Your task to perform on an android device: turn vacation reply on in the gmail app Image 0: 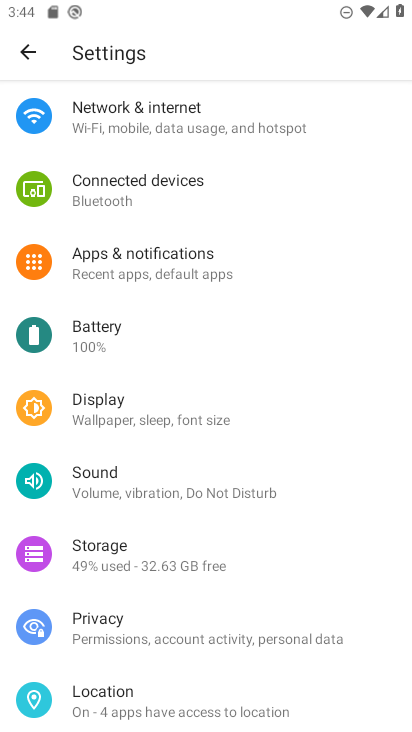
Step 0: press home button
Your task to perform on an android device: turn vacation reply on in the gmail app Image 1: 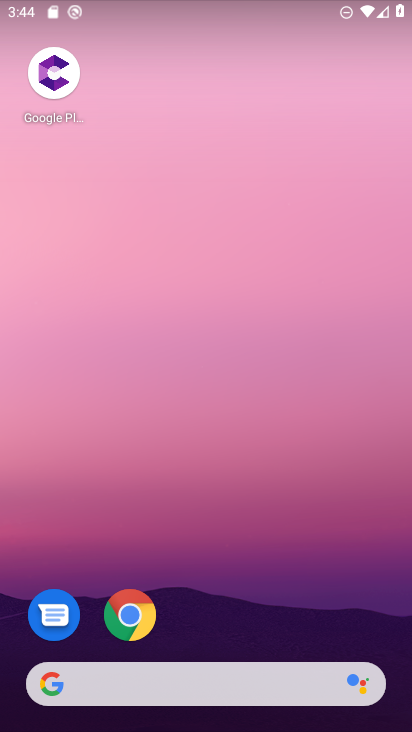
Step 1: drag from (250, 607) to (250, 96)
Your task to perform on an android device: turn vacation reply on in the gmail app Image 2: 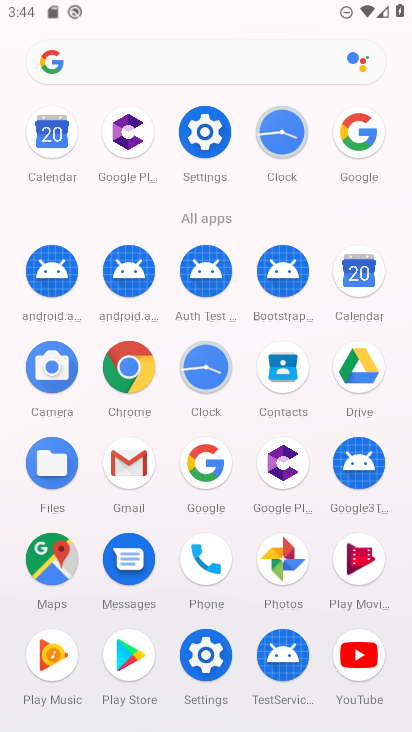
Step 2: click (132, 461)
Your task to perform on an android device: turn vacation reply on in the gmail app Image 3: 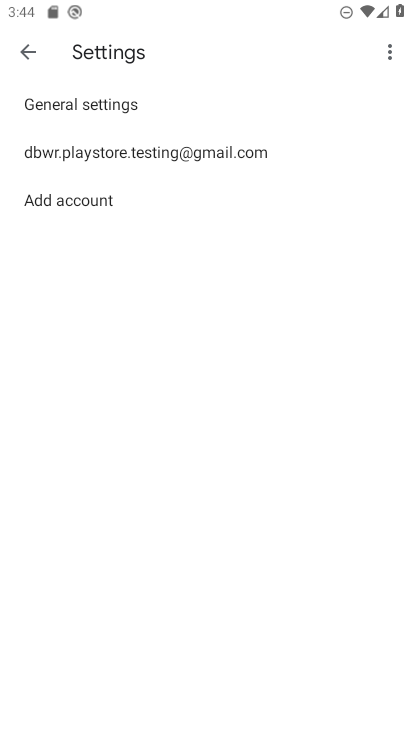
Step 3: click (159, 150)
Your task to perform on an android device: turn vacation reply on in the gmail app Image 4: 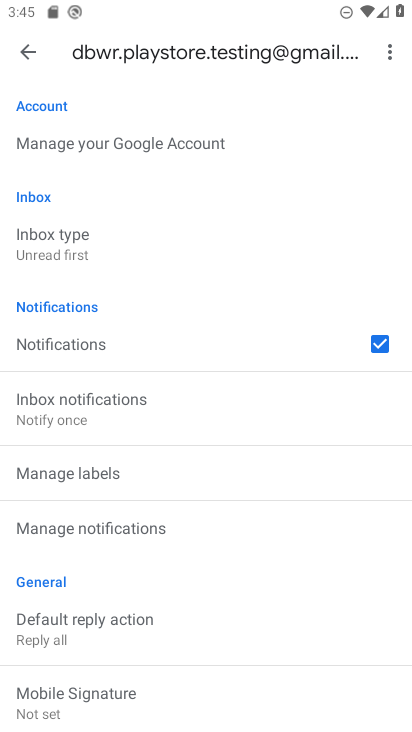
Step 4: drag from (202, 609) to (225, 260)
Your task to perform on an android device: turn vacation reply on in the gmail app Image 5: 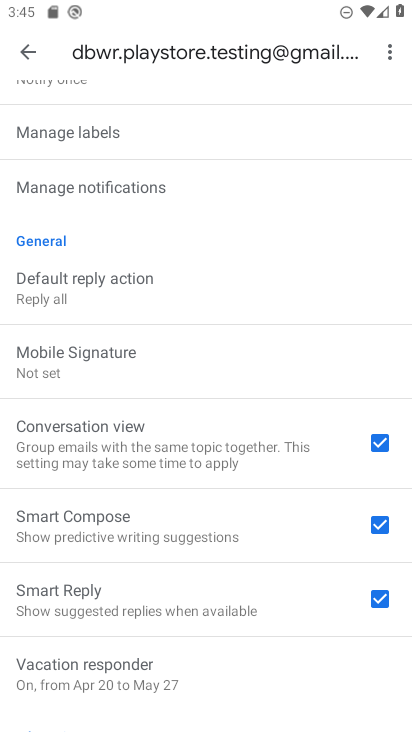
Step 5: click (146, 680)
Your task to perform on an android device: turn vacation reply on in the gmail app Image 6: 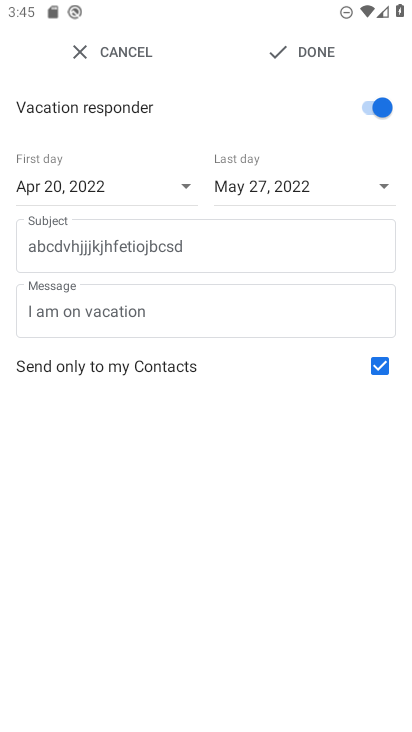
Step 6: click (314, 51)
Your task to perform on an android device: turn vacation reply on in the gmail app Image 7: 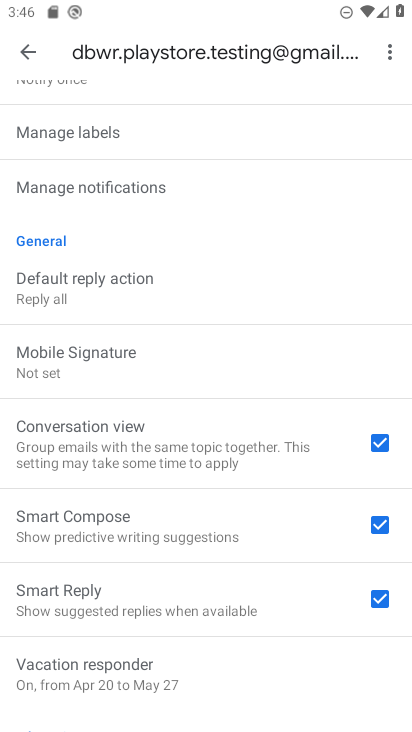
Step 7: task complete